Your task to perform on an android device: Open Chrome and go to settings Image 0: 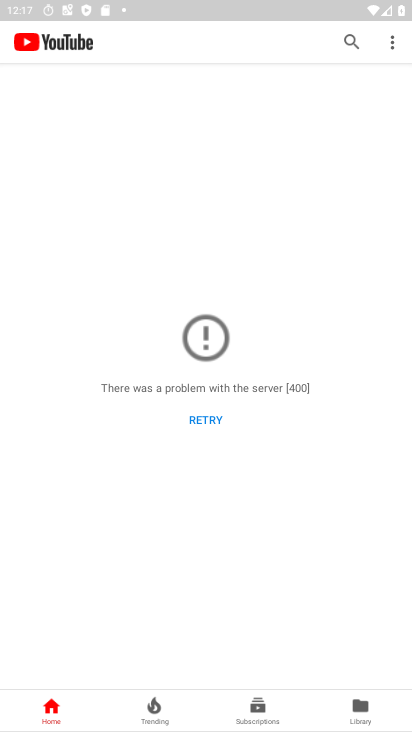
Step 0: press home button
Your task to perform on an android device: Open Chrome and go to settings Image 1: 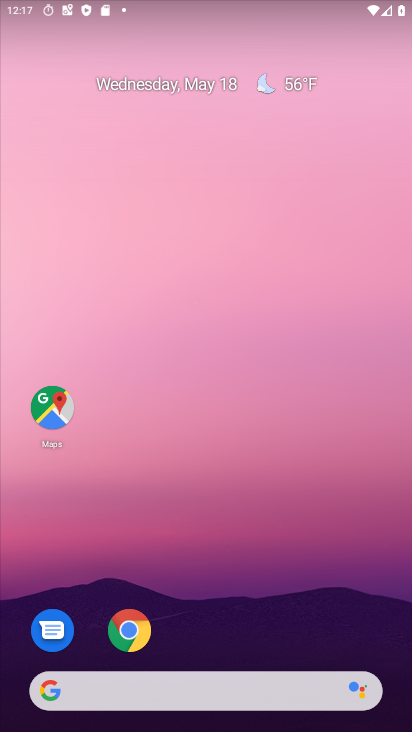
Step 1: click (132, 635)
Your task to perform on an android device: Open Chrome and go to settings Image 2: 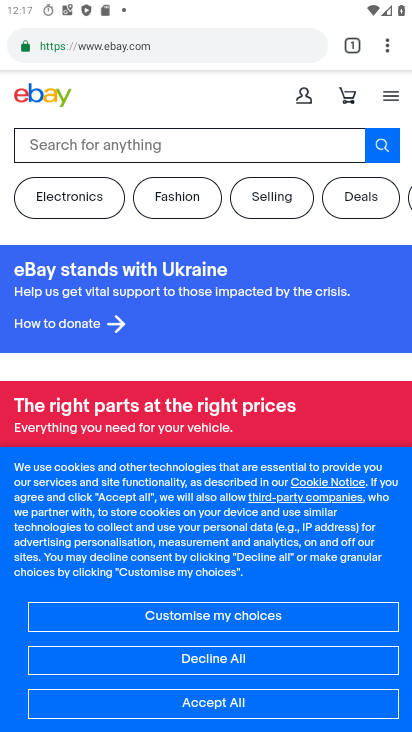
Step 2: click (389, 46)
Your task to perform on an android device: Open Chrome and go to settings Image 3: 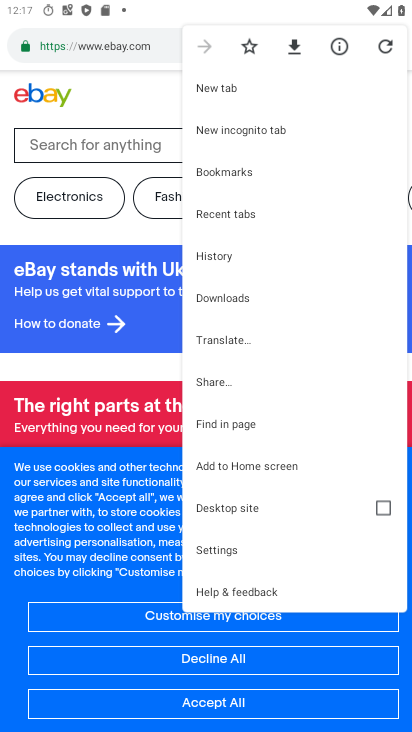
Step 3: click (217, 548)
Your task to perform on an android device: Open Chrome and go to settings Image 4: 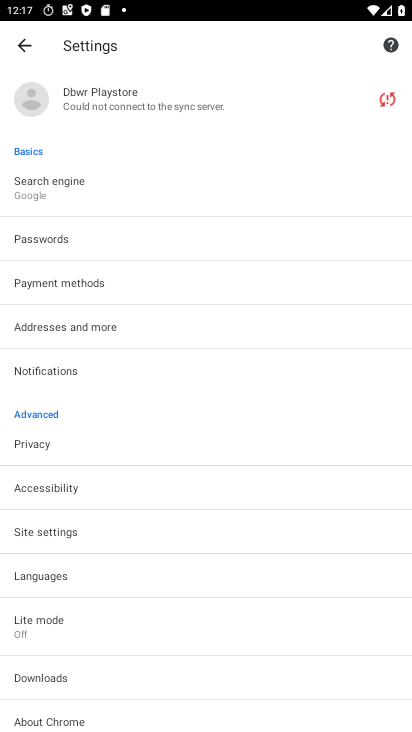
Step 4: task complete